Your task to perform on an android device: Turn off the flashlight Image 0: 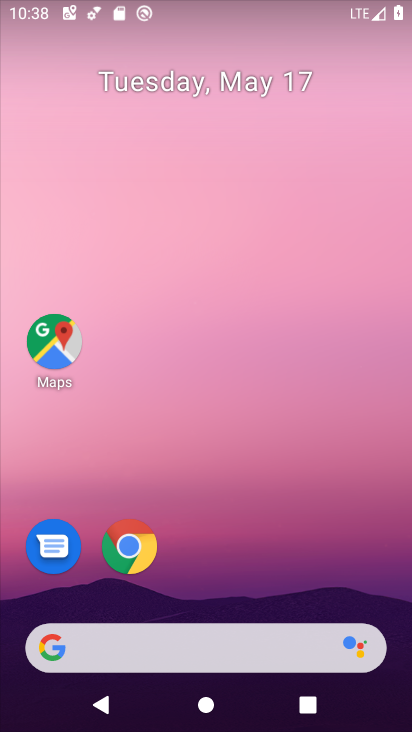
Step 0: drag from (223, 599) to (248, 172)
Your task to perform on an android device: Turn off the flashlight Image 1: 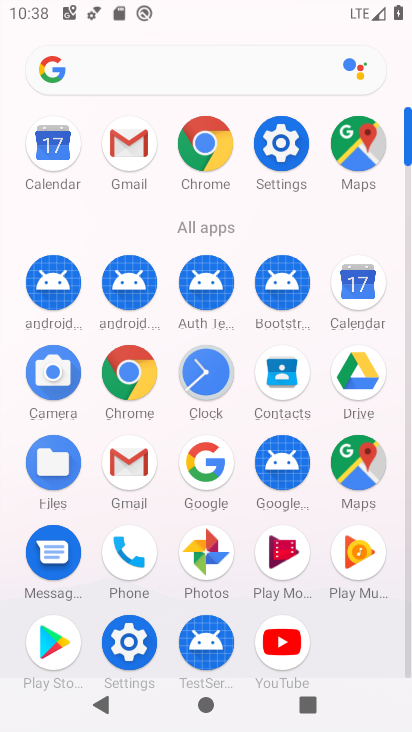
Step 1: click (283, 162)
Your task to perform on an android device: Turn off the flashlight Image 2: 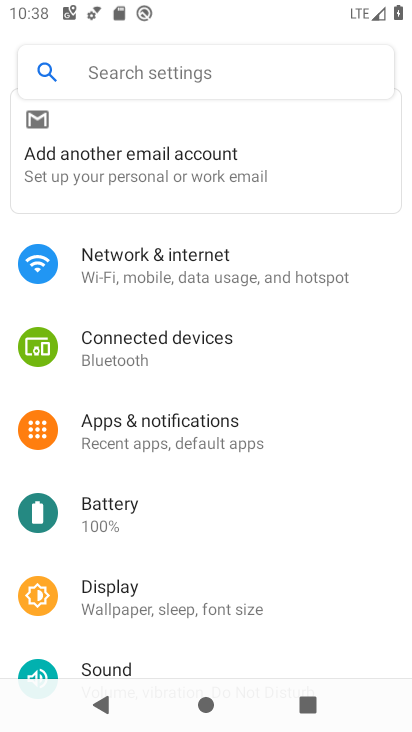
Step 2: click (223, 78)
Your task to perform on an android device: Turn off the flashlight Image 3: 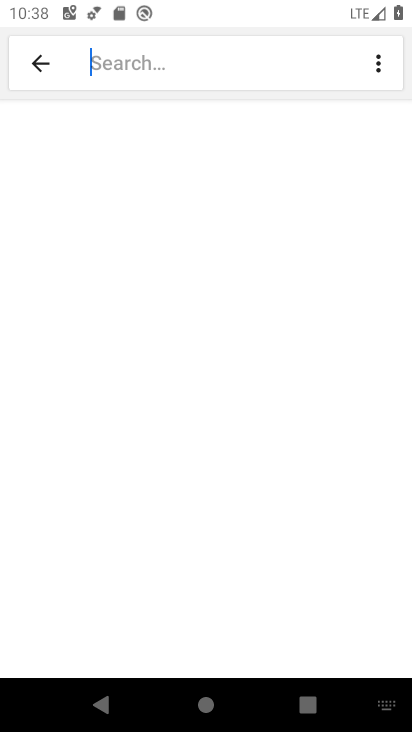
Step 3: type "flashlight"
Your task to perform on an android device: Turn off the flashlight Image 4: 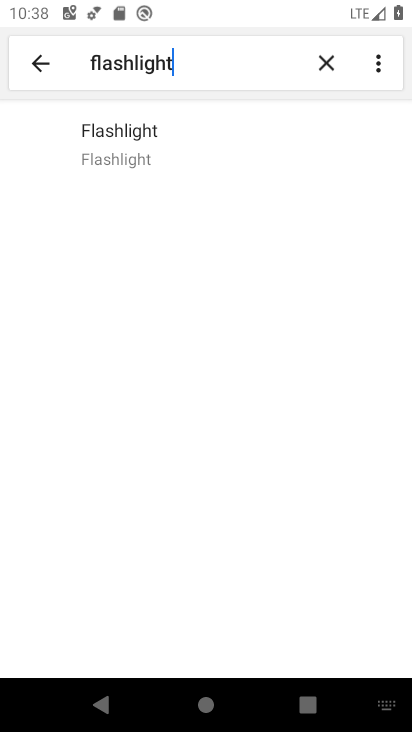
Step 4: click (127, 147)
Your task to perform on an android device: Turn off the flashlight Image 5: 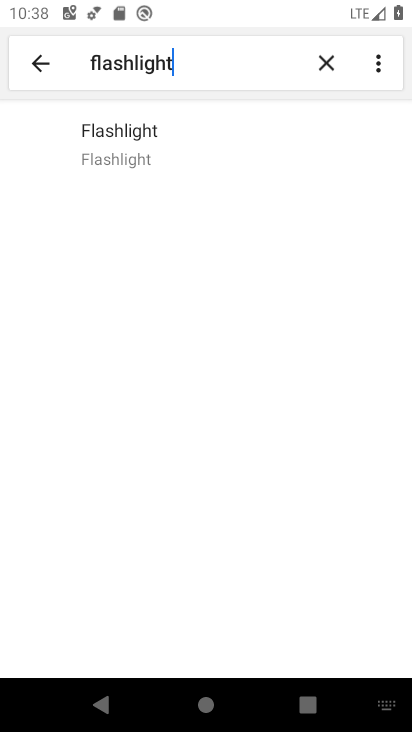
Step 5: click (126, 148)
Your task to perform on an android device: Turn off the flashlight Image 6: 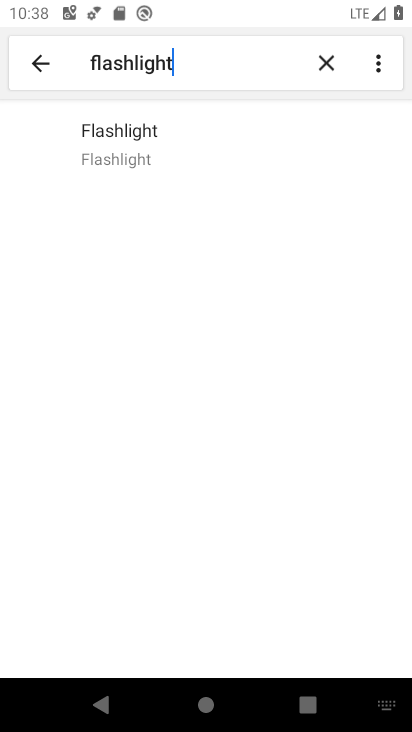
Step 6: task complete